Your task to perform on an android device: visit the assistant section in the google photos Image 0: 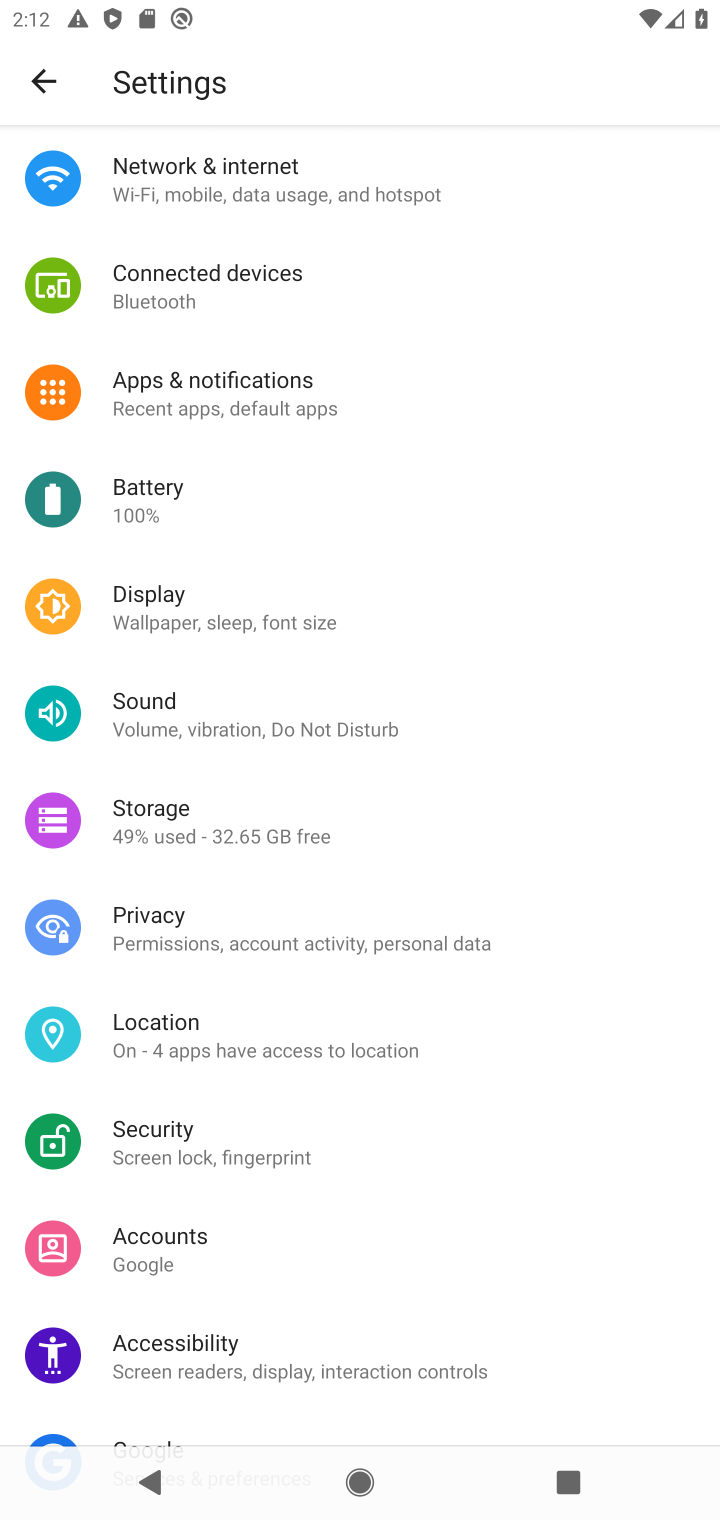
Step 0: press home button
Your task to perform on an android device: visit the assistant section in the google photos Image 1: 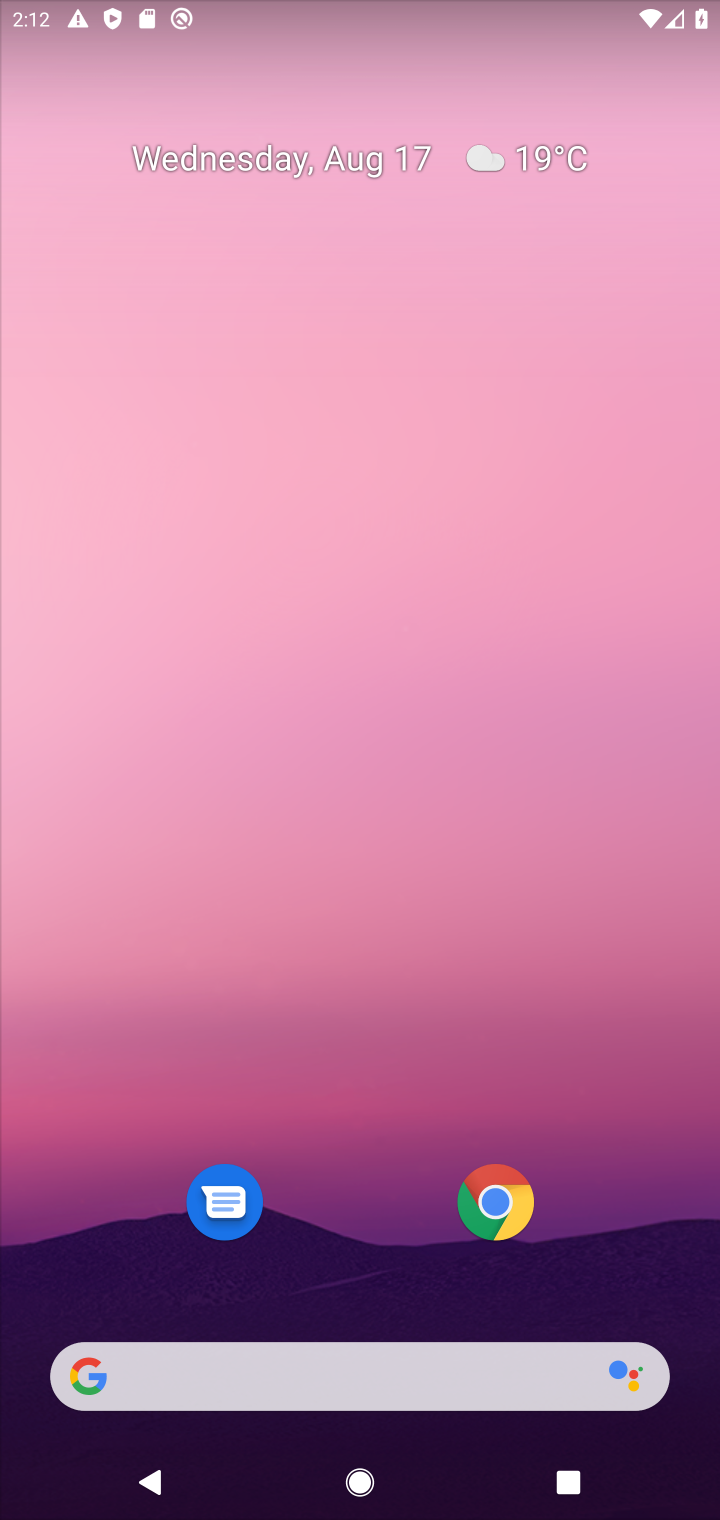
Step 1: drag from (352, 1164) to (332, 180)
Your task to perform on an android device: visit the assistant section in the google photos Image 2: 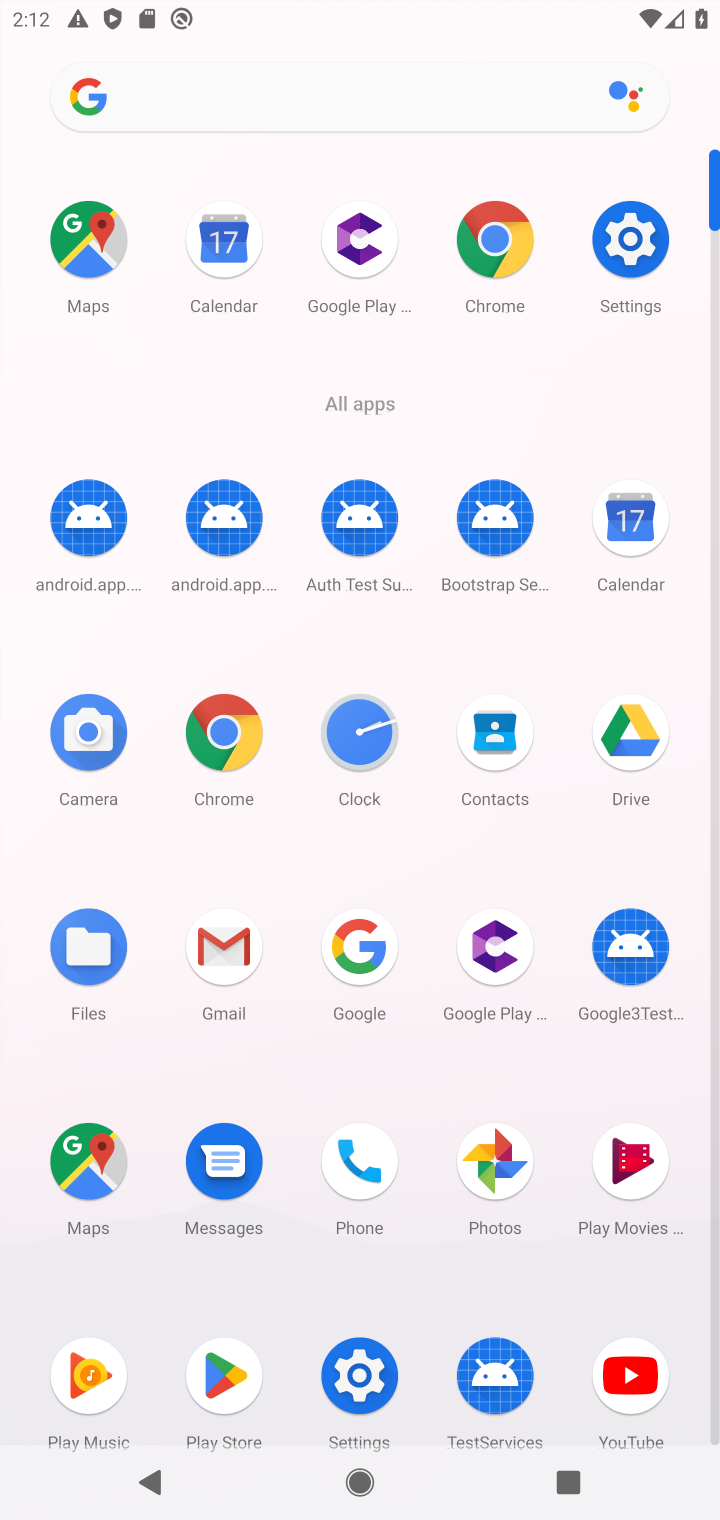
Step 2: click (496, 1160)
Your task to perform on an android device: visit the assistant section in the google photos Image 3: 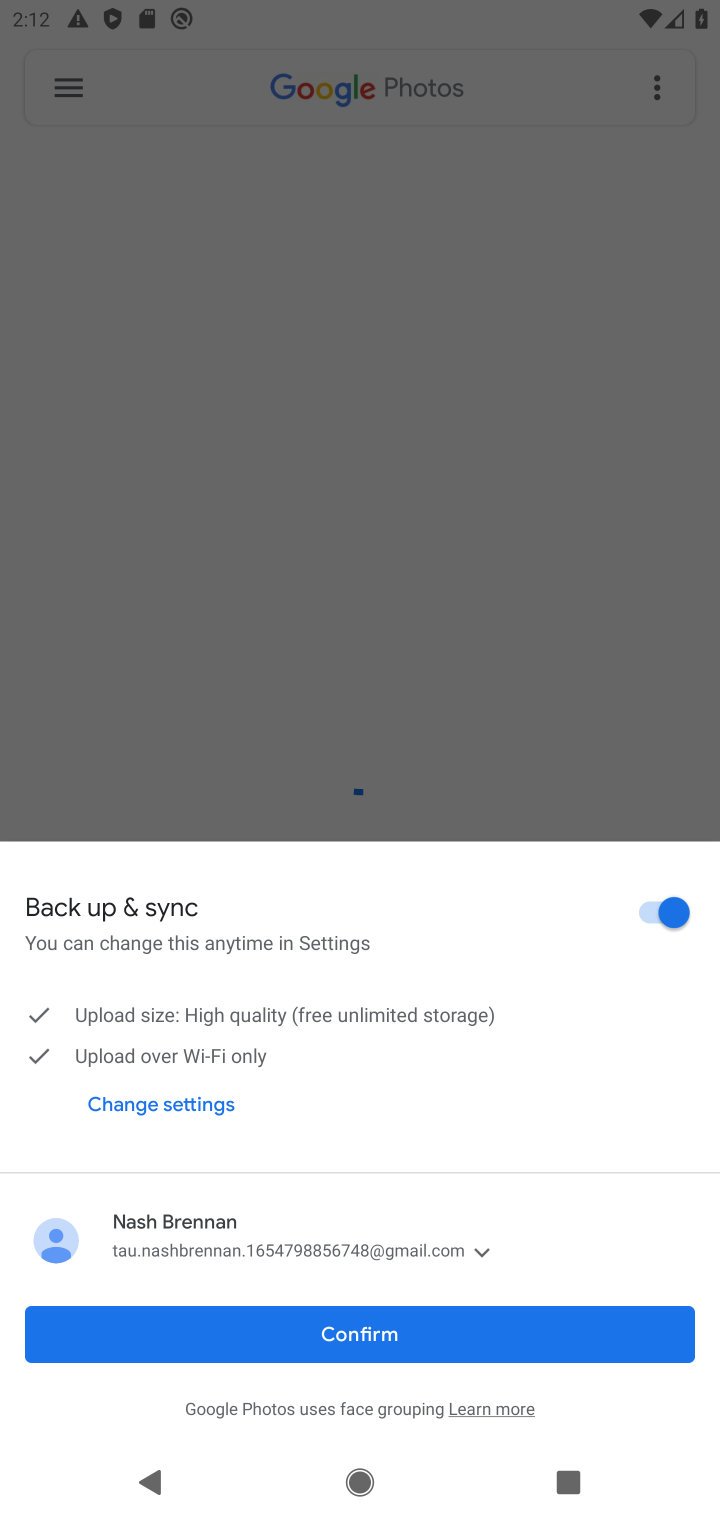
Step 3: click (325, 1342)
Your task to perform on an android device: visit the assistant section in the google photos Image 4: 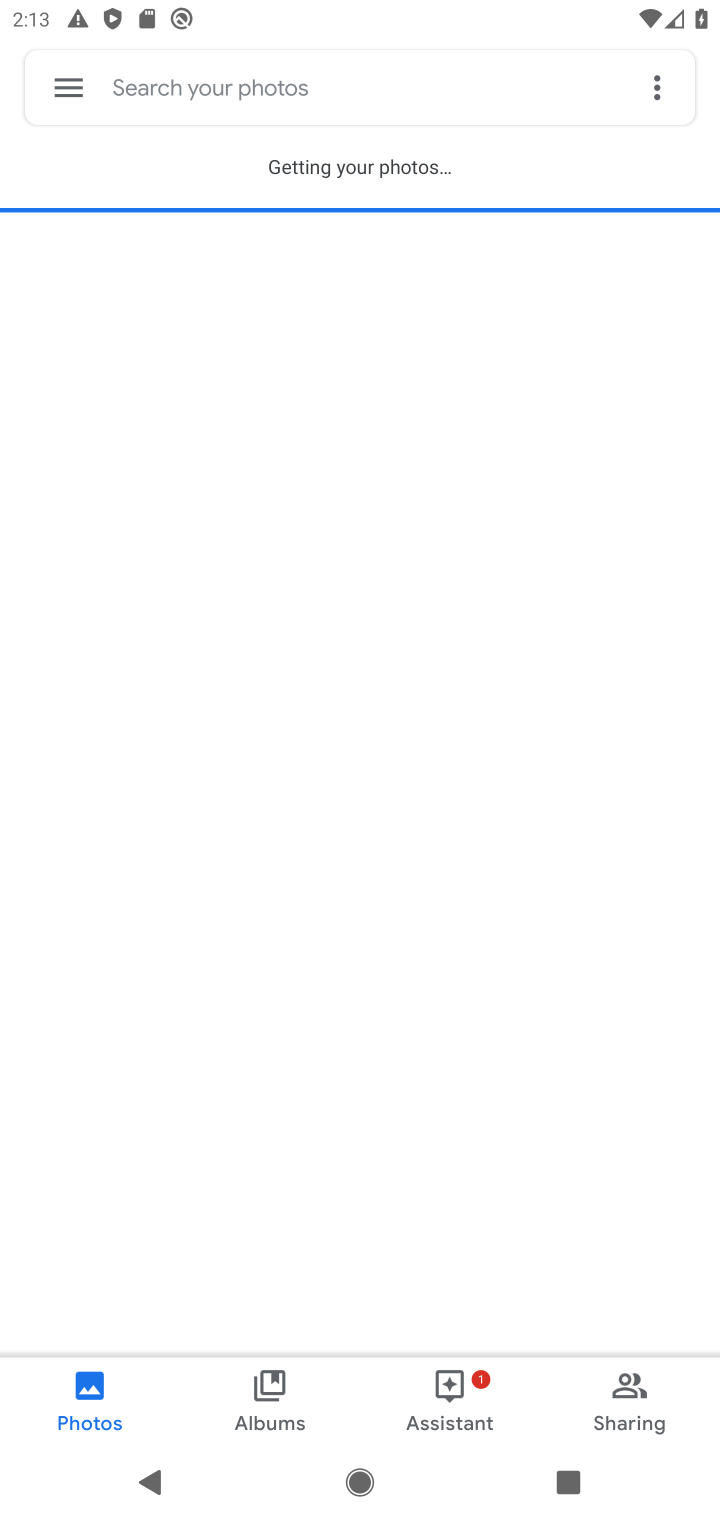
Step 4: click (474, 1370)
Your task to perform on an android device: visit the assistant section in the google photos Image 5: 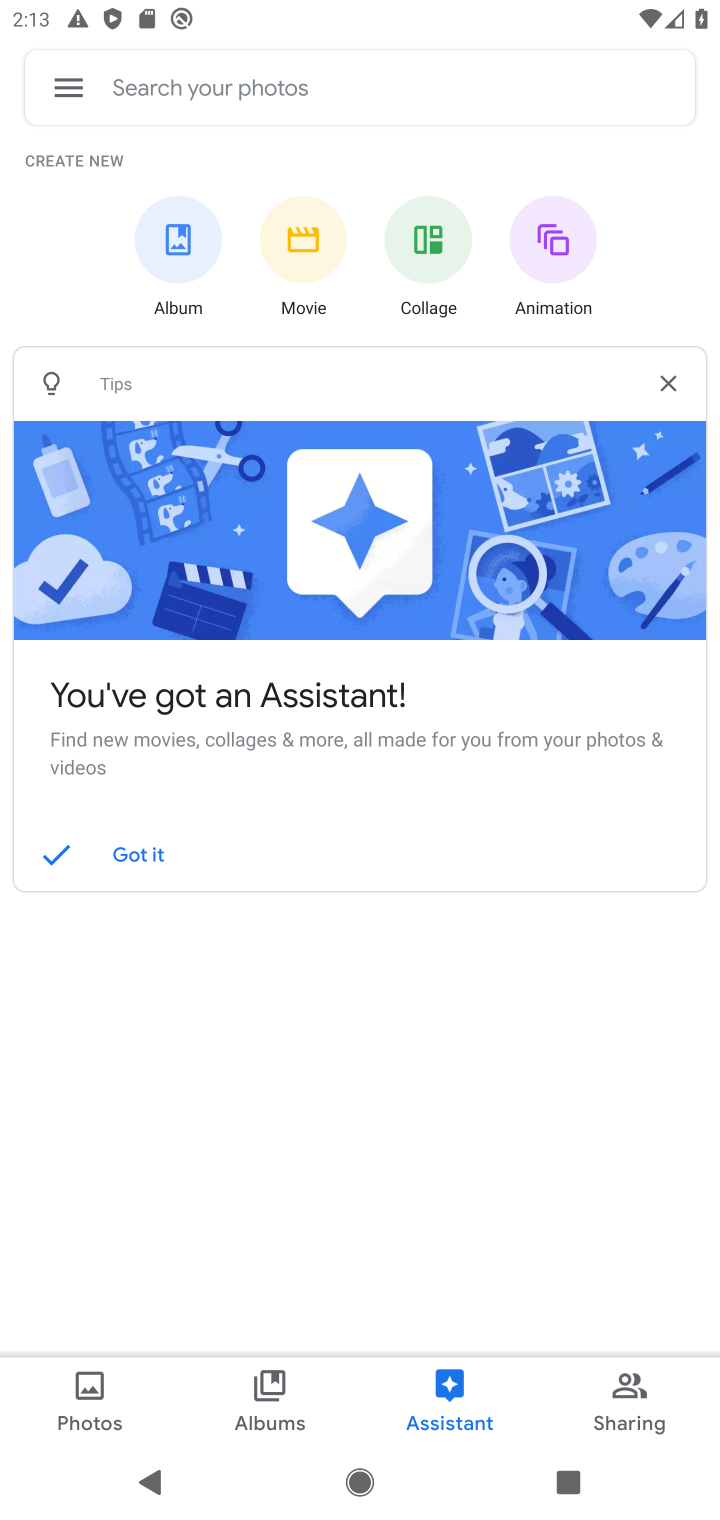
Step 5: click (442, 1401)
Your task to perform on an android device: visit the assistant section in the google photos Image 6: 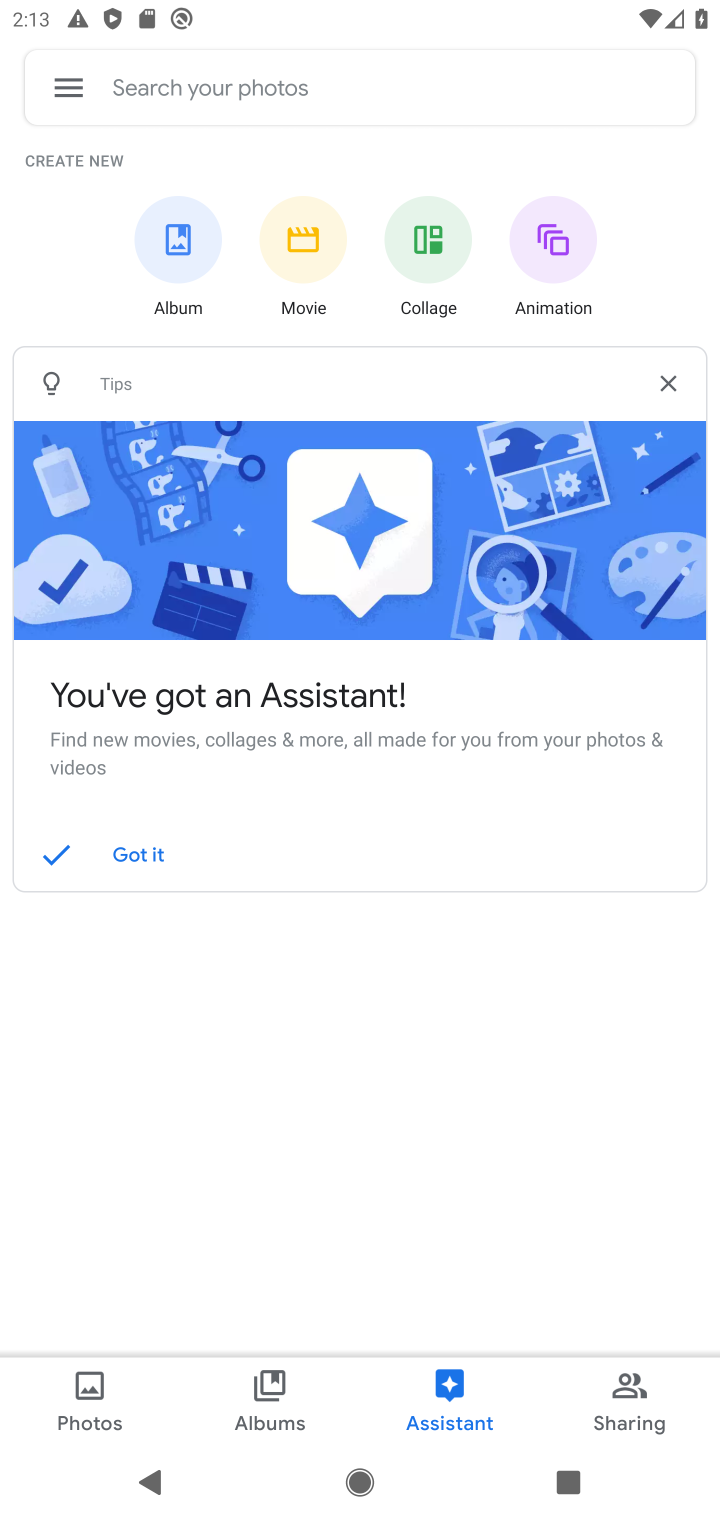
Step 6: task complete